Your task to perform on an android device: What's on my calendar today? Image 0: 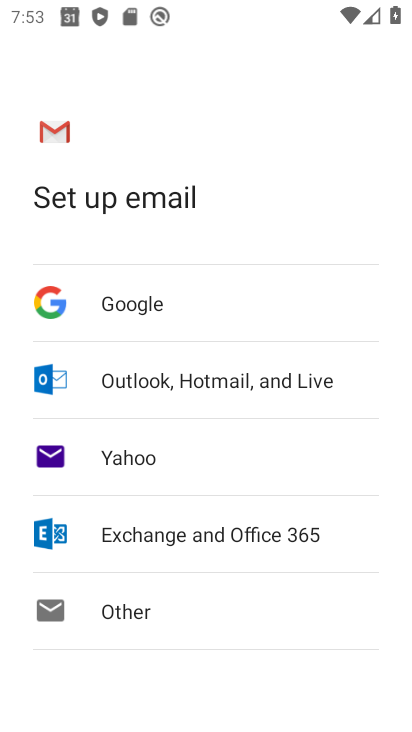
Step 0: press home button
Your task to perform on an android device: What's on my calendar today? Image 1: 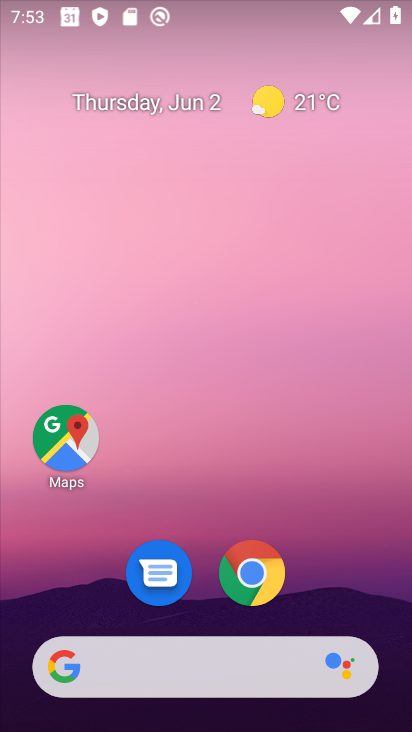
Step 1: drag from (353, 363) to (332, 40)
Your task to perform on an android device: What's on my calendar today? Image 2: 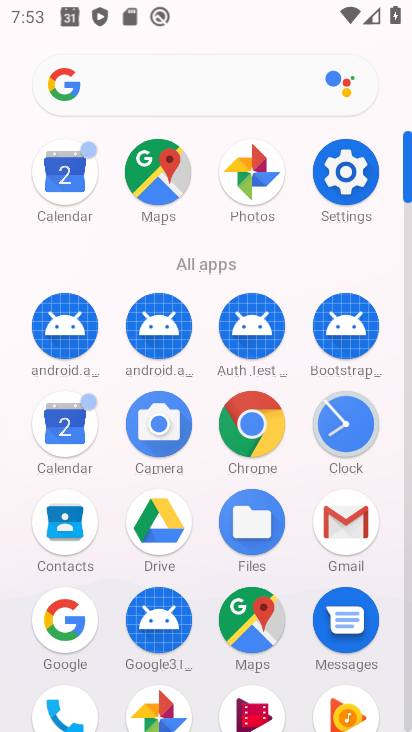
Step 2: click (71, 415)
Your task to perform on an android device: What's on my calendar today? Image 3: 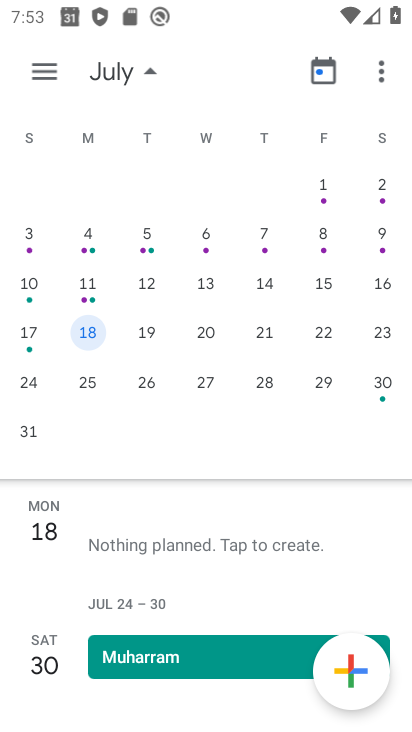
Step 3: drag from (79, 428) to (411, 362)
Your task to perform on an android device: What's on my calendar today? Image 4: 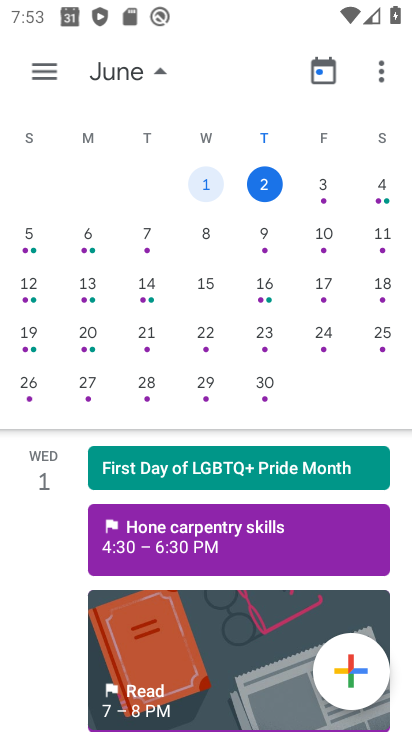
Step 4: click (262, 194)
Your task to perform on an android device: What's on my calendar today? Image 5: 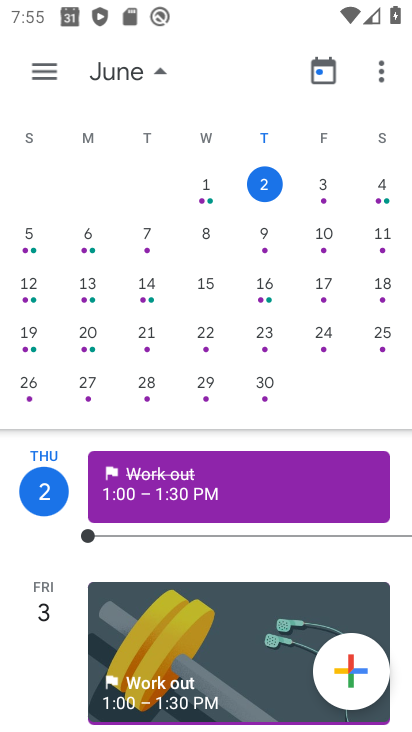
Step 5: task complete